Your task to perform on an android device: make emails show in primary in the gmail app Image 0: 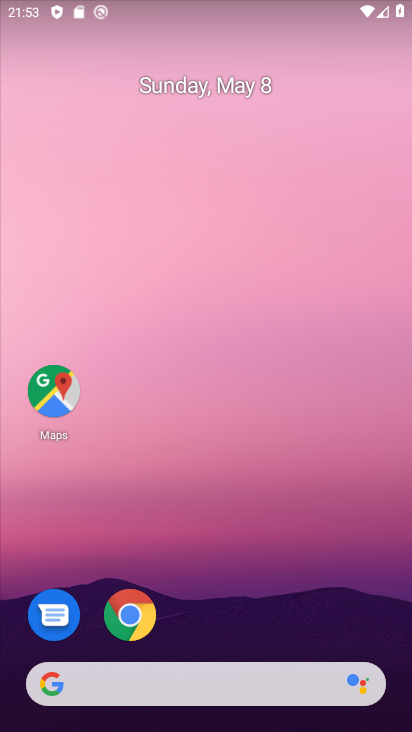
Step 0: drag from (295, 601) to (321, 106)
Your task to perform on an android device: make emails show in primary in the gmail app Image 1: 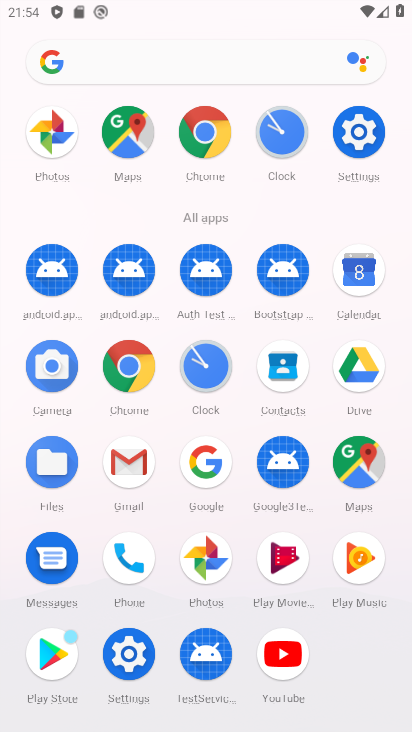
Step 1: click (124, 465)
Your task to perform on an android device: make emails show in primary in the gmail app Image 2: 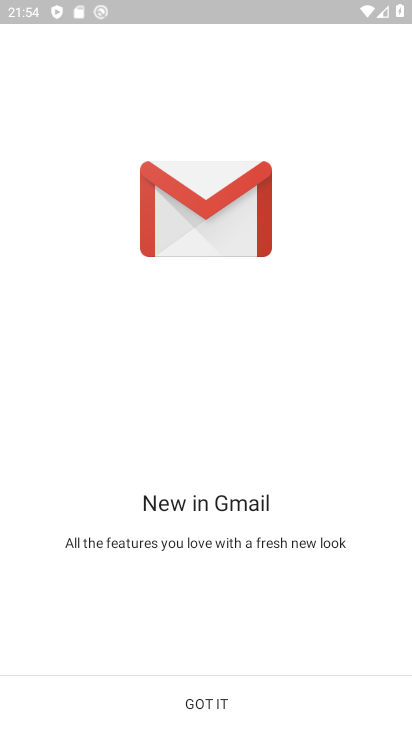
Step 2: click (222, 708)
Your task to perform on an android device: make emails show in primary in the gmail app Image 3: 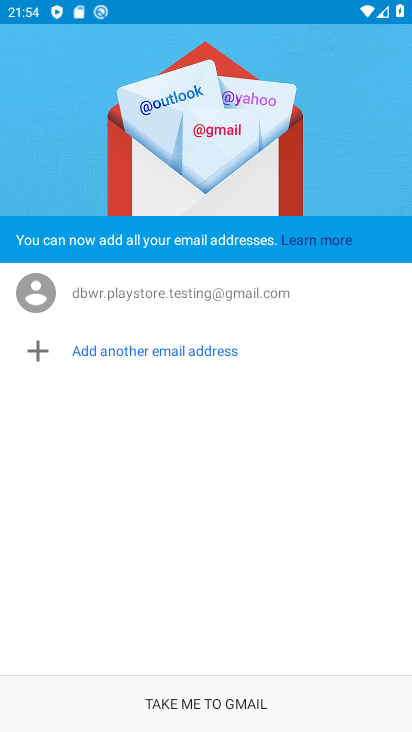
Step 3: click (226, 706)
Your task to perform on an android device: make emails show in primary in the gmail app Image 4: 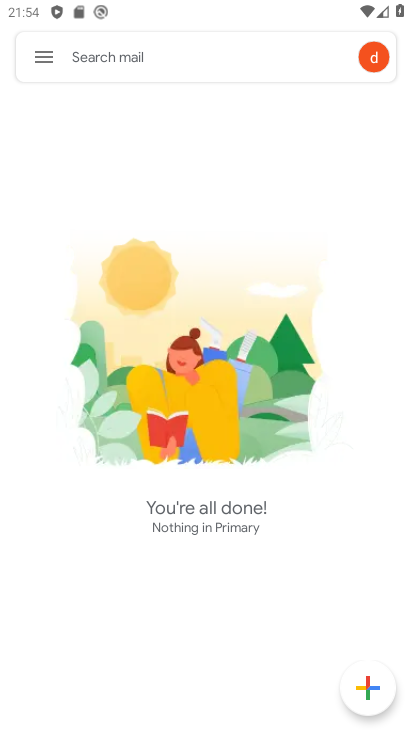
Step 4: click (45, 65)
Your task to perform on an android device: make emails show in primary in the gmail app Image 5: 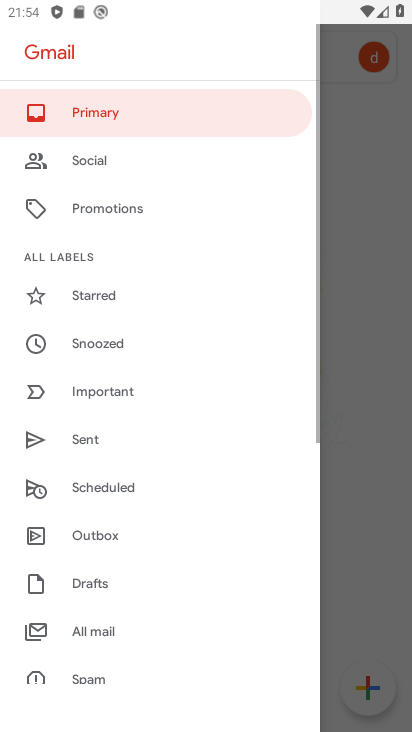
Step 5: drag from (106, 681) to (122, 103)
Your task to perform on an android device: make emails show in primary in the gmail app Image 6: 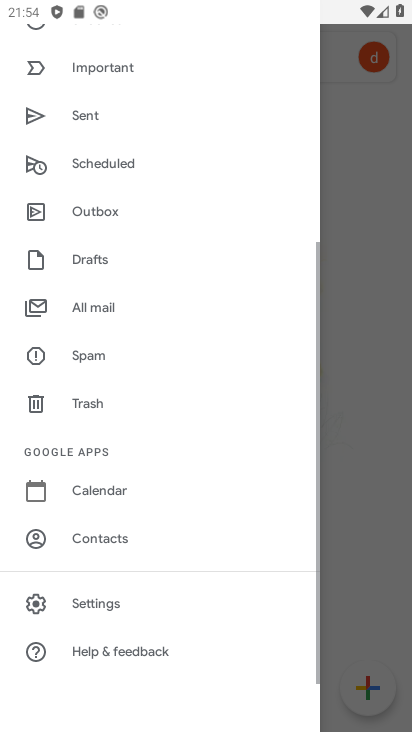
Step 6: click (80, 600)
Your task to perform on an android device: make emails show in primary in the gmail app Image 7: 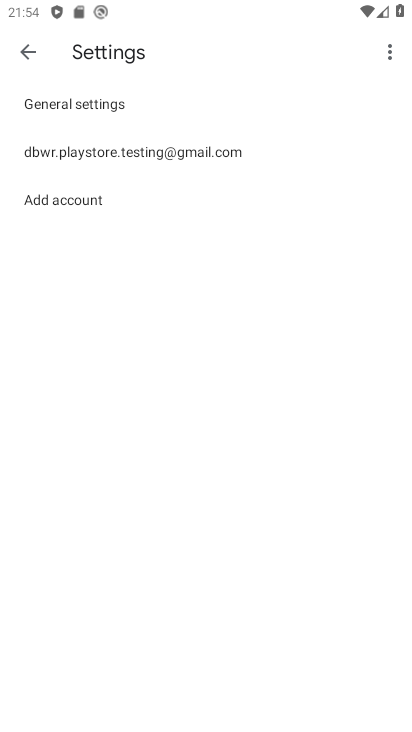
Step 7: click (140, 160)
Your task to perform on an android device: make emails show in primary in the gmail app Image 8: 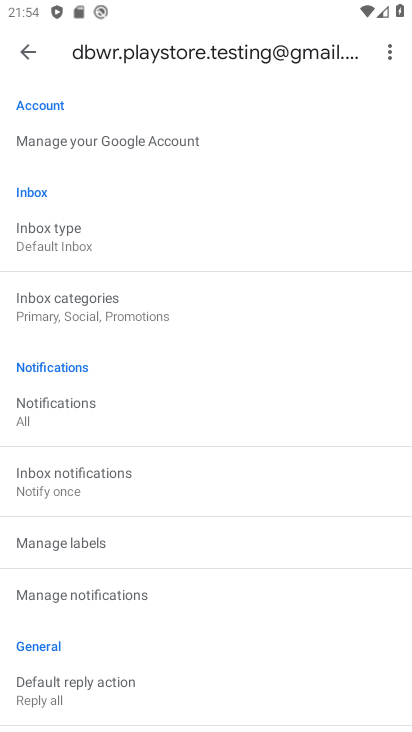
Step 8: click (98, 300)
Your task to perform on an android device: make emails show in primary in the gmail app Image 9: 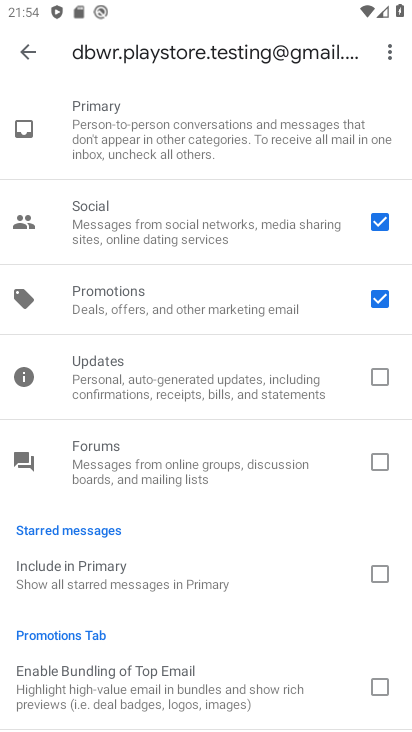
Step 9: task complete